Your task to perform on an android device: Open the web browser Image 0: 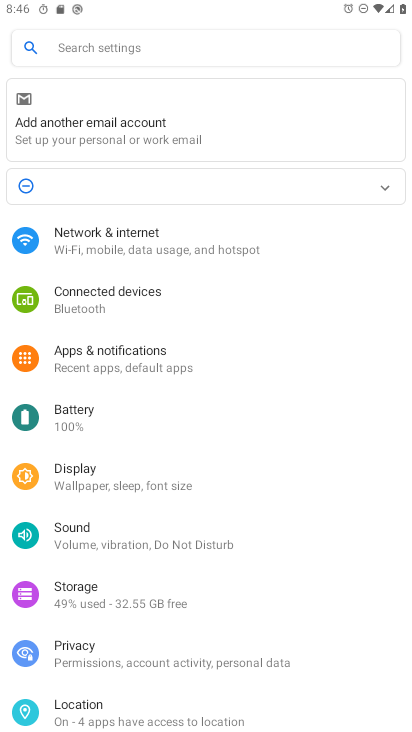
Step 0: press home button
Your task to perform on an android device: Open the web browser Image 1: 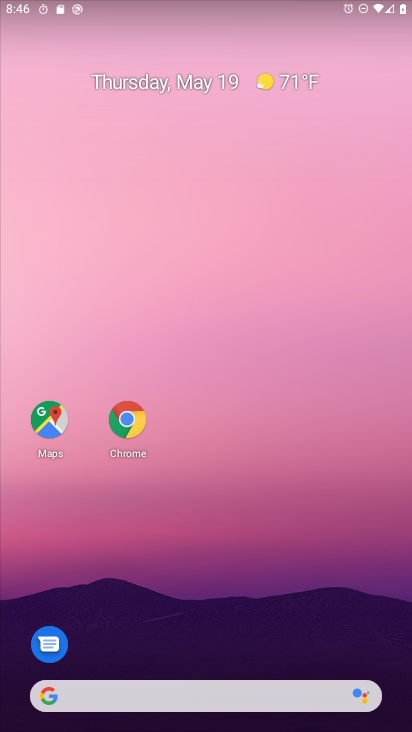
Step 1: click (130, 425)
Your task to perform on an android device: Open the web browser Image 2: 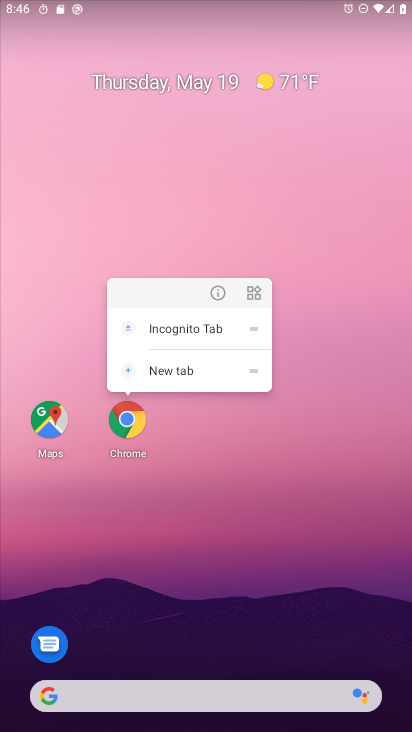
Step 2: click (120, 414)
Your task to perform on an android device: Open the web browser Image 3: 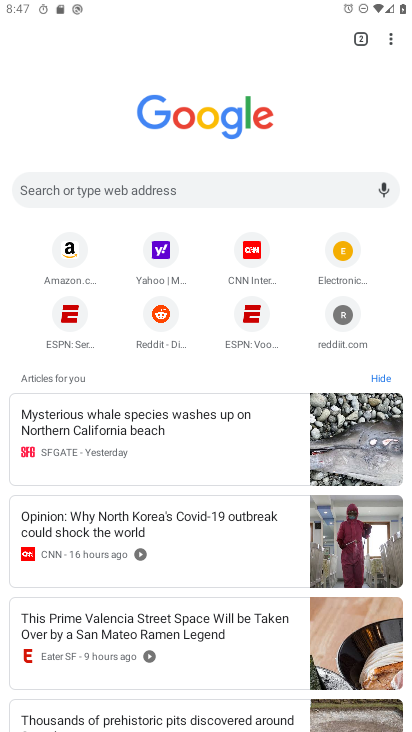
Step 3: click (151, 188)
Your task to perform on an android device: Open the web browser Image 4: 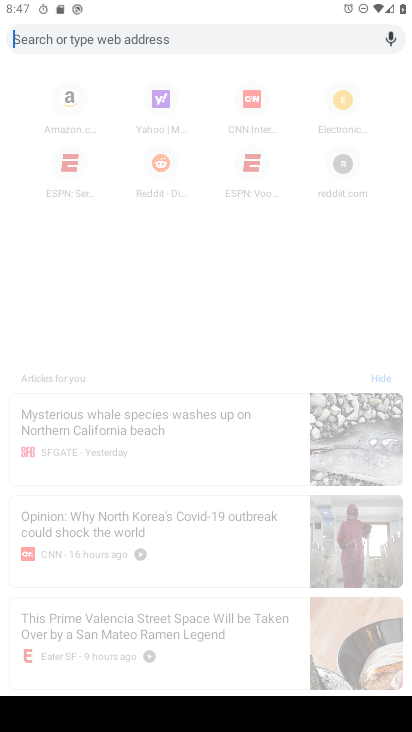
Step 4: task complete